Your task to perform on an android device: Set the phone to "Do not disturb". Image 0: 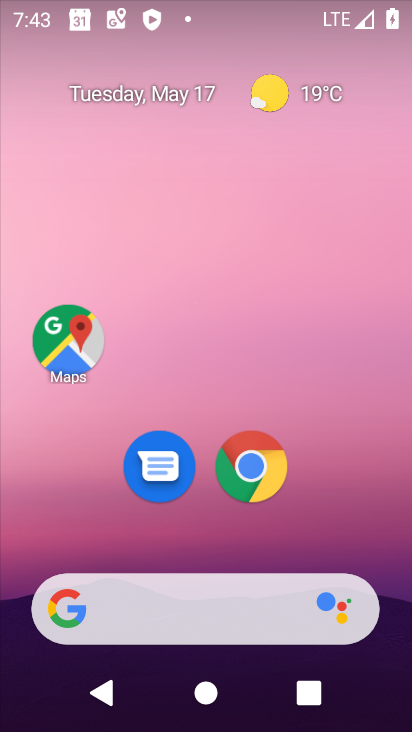
Step 0: drag from (159, 564) to (283, 146)
Your task to perform on an android device: Set the phone to "Do not disturb". Image 1: 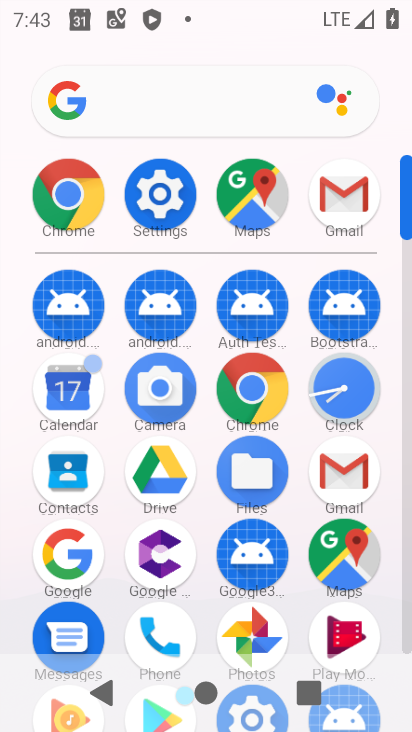
Step 1: click (168, 213)
Your task to perform on an android device: Set the phone to "Do not disturb". Image 2: 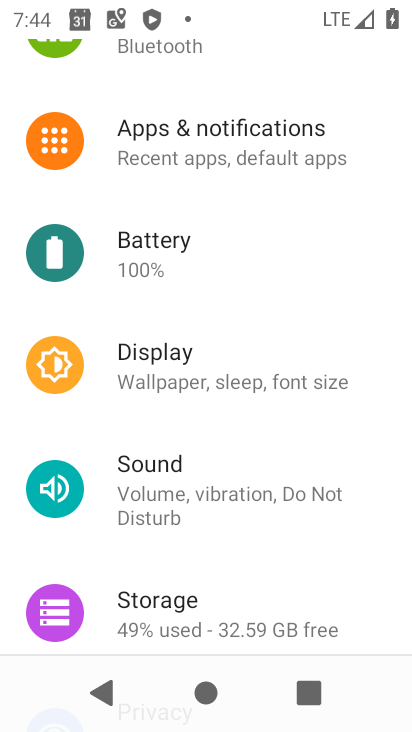
Step 2: click (167, 496)
Your task to perform on an android device: Set the phone to "Do not disturb". Image 3: 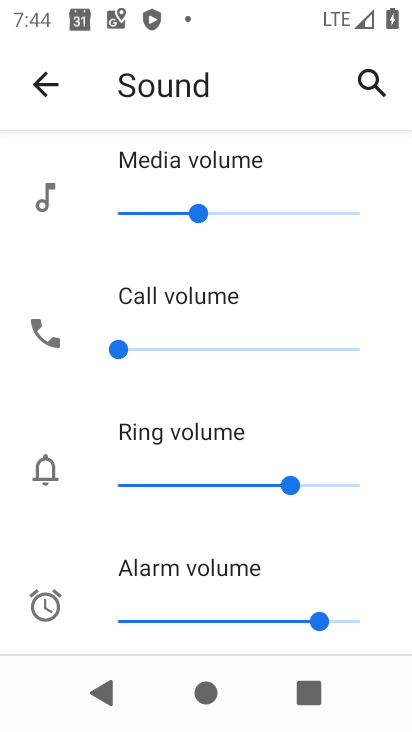
Step 3: drag from (185, 642) to (324, 99)
Your task to perform on an android device: Set the phone to "Do not disturb". Image 4: 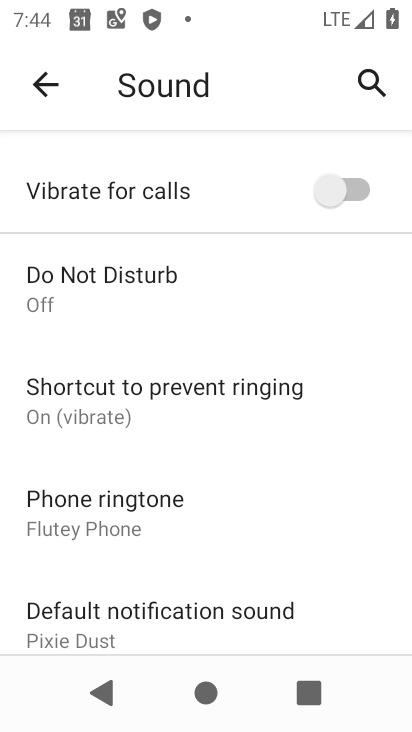
Step 4: click (91, 275)
Your task to perform on an android device: Set the phone to "Do not disturb". Image 5: 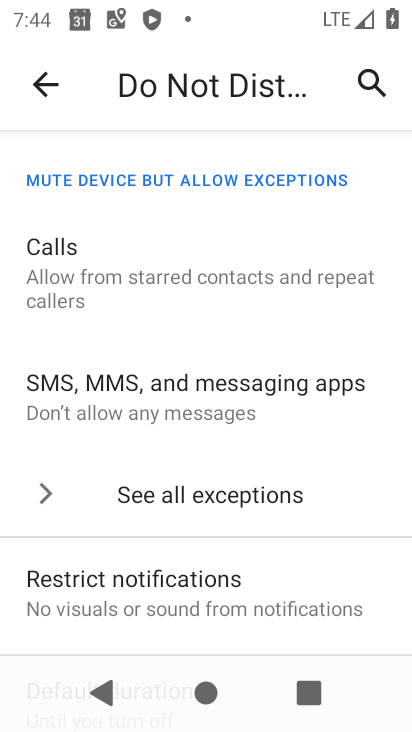
Step 5: drag from (119, 602) to (256, 66)
Your task to perform on an android device: Set the phone to "Do not disturb". Image 6: 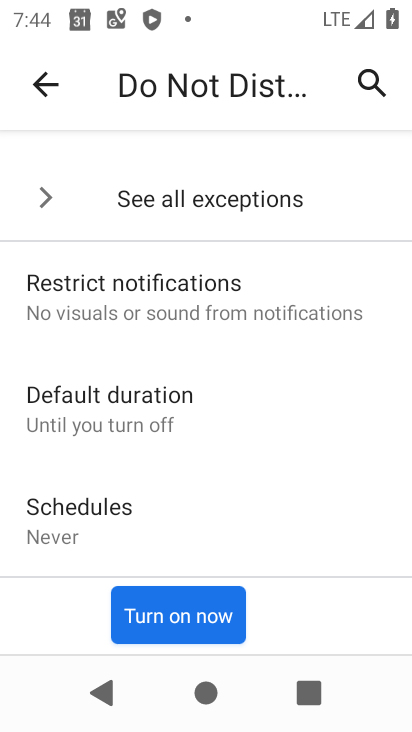
Step 6: click (169, 636)
Your task to perform on an android device: Set the phone to "Do not disturb". Image 7: 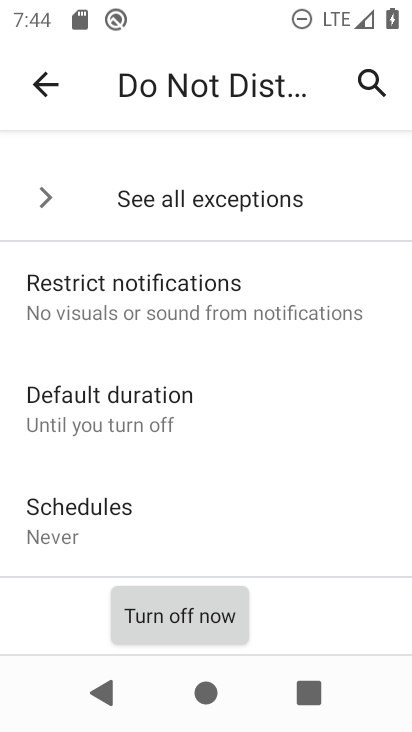
Step 7: task complete